Your task to perform on an android device: find which apps use the phone's location Image 0: 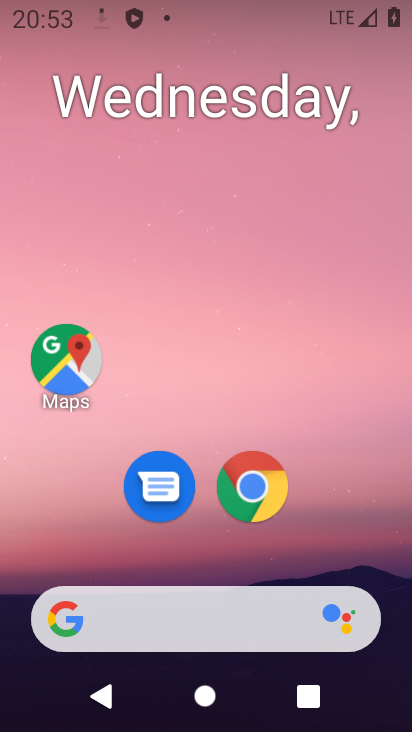
Step 0: drag from (195, 477) to (268, 14)
Your task to perform on an android device: find which apps use the phone's location Image 1: 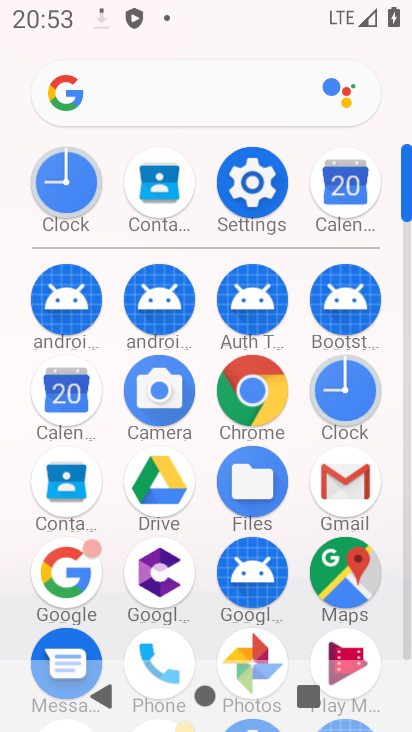
Step 1: click (242, 185)
Your task to perform on an android device: find which apps use the phone's location Image 2: 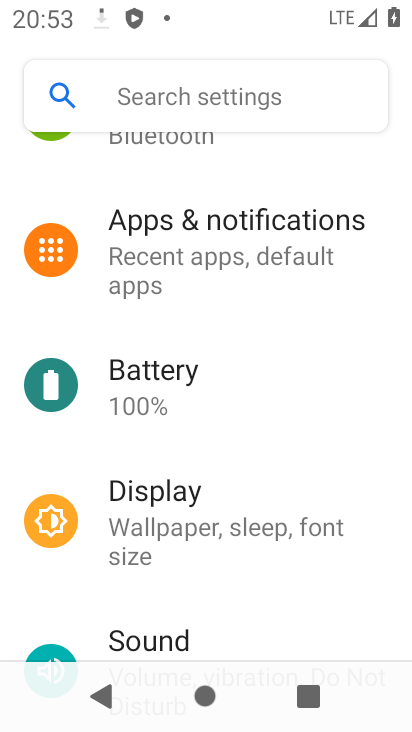
Step 2: drag from (193, 615) to (330, 138)
Your task to perform on an android device: find which apps use the phone's location Image 3: 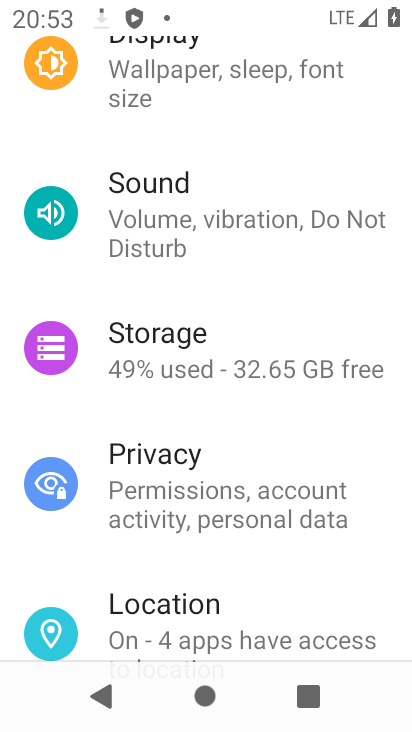
Step 3: click (162, 613)
Your task to perform on an android device: find which apps use the phone's location Image 4: 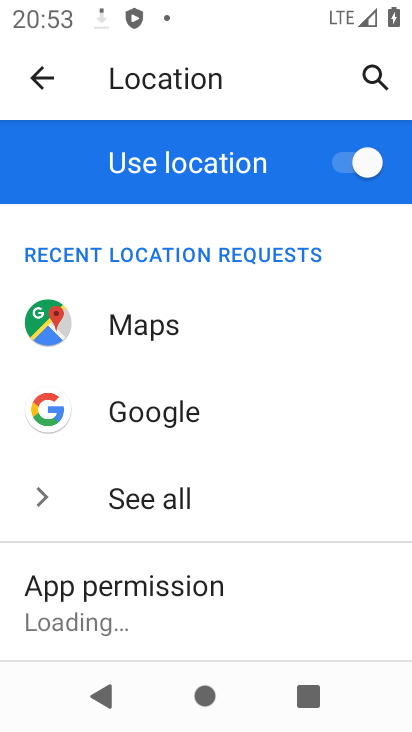
Step 4: drag from (184, 628) to (263, 509)
Your task to perform on an android device: find which apps use the phone's location Image 5: 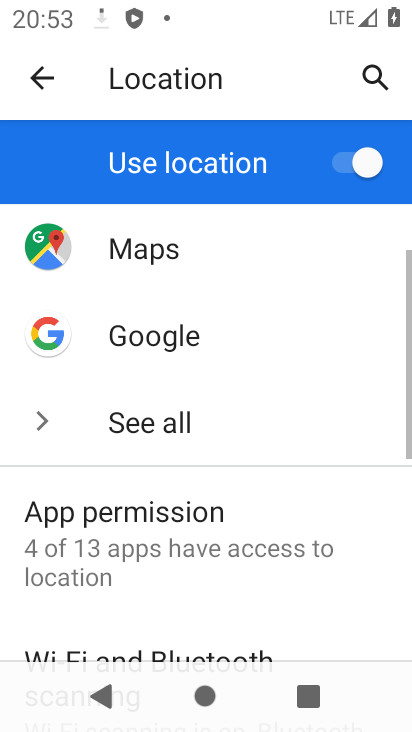
Step 5: click (239, 512)
Your task to perform on an android device: find which apps use the phone's location Image 6: 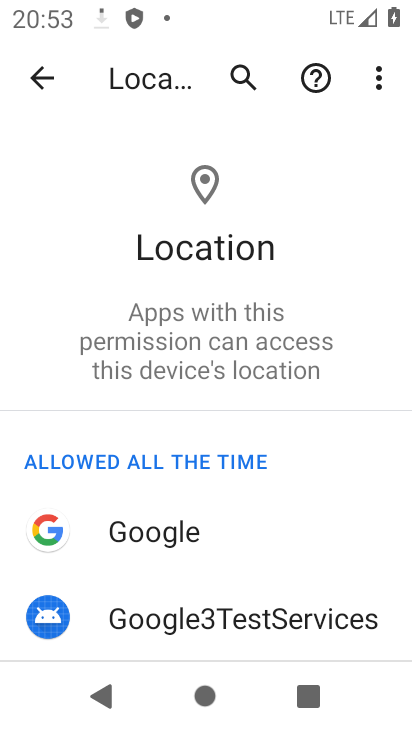
Step 6: task complete